Your task to perform on an android device: turn pop-ups on in chrome Image 0: 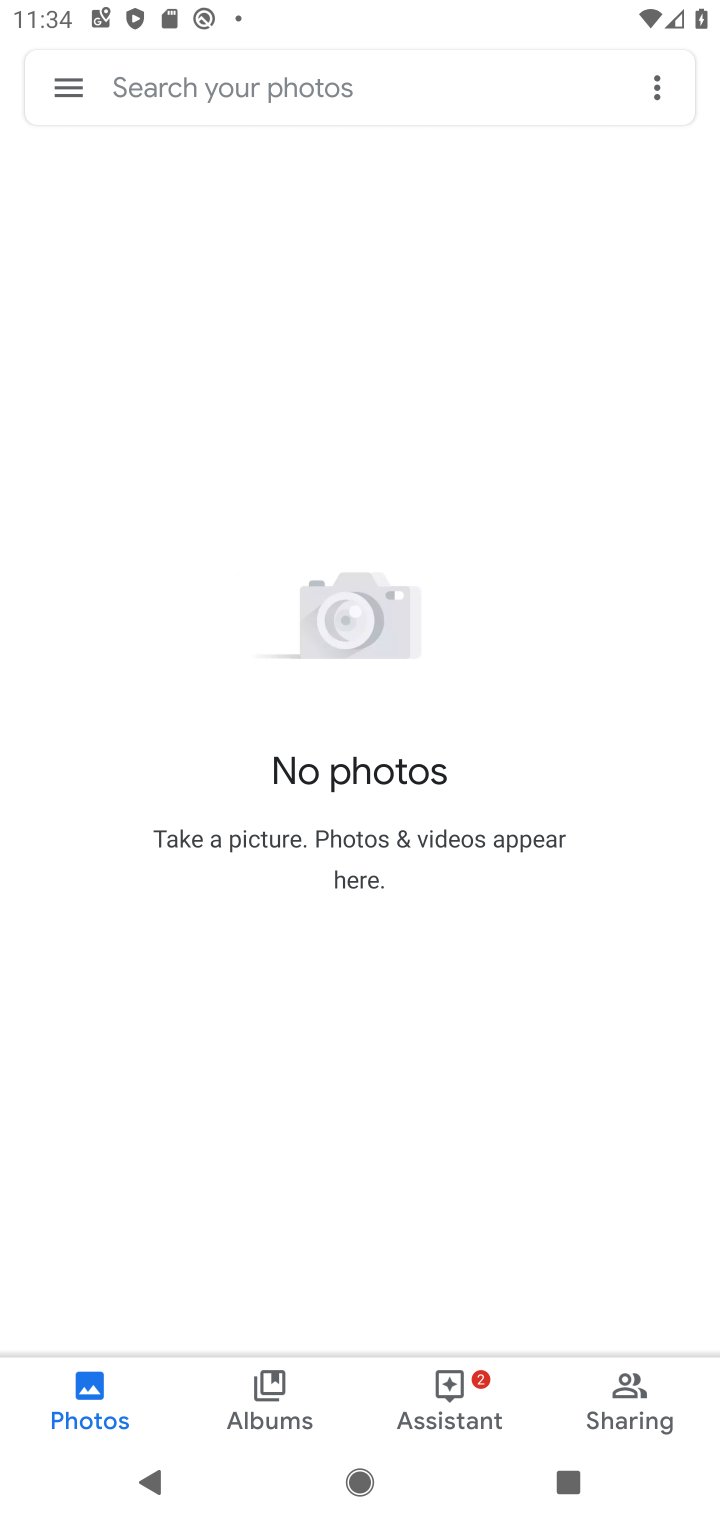
Step 0: press back button
Your task to perform on an android device: turn pop-ups on in chrome Image 1: 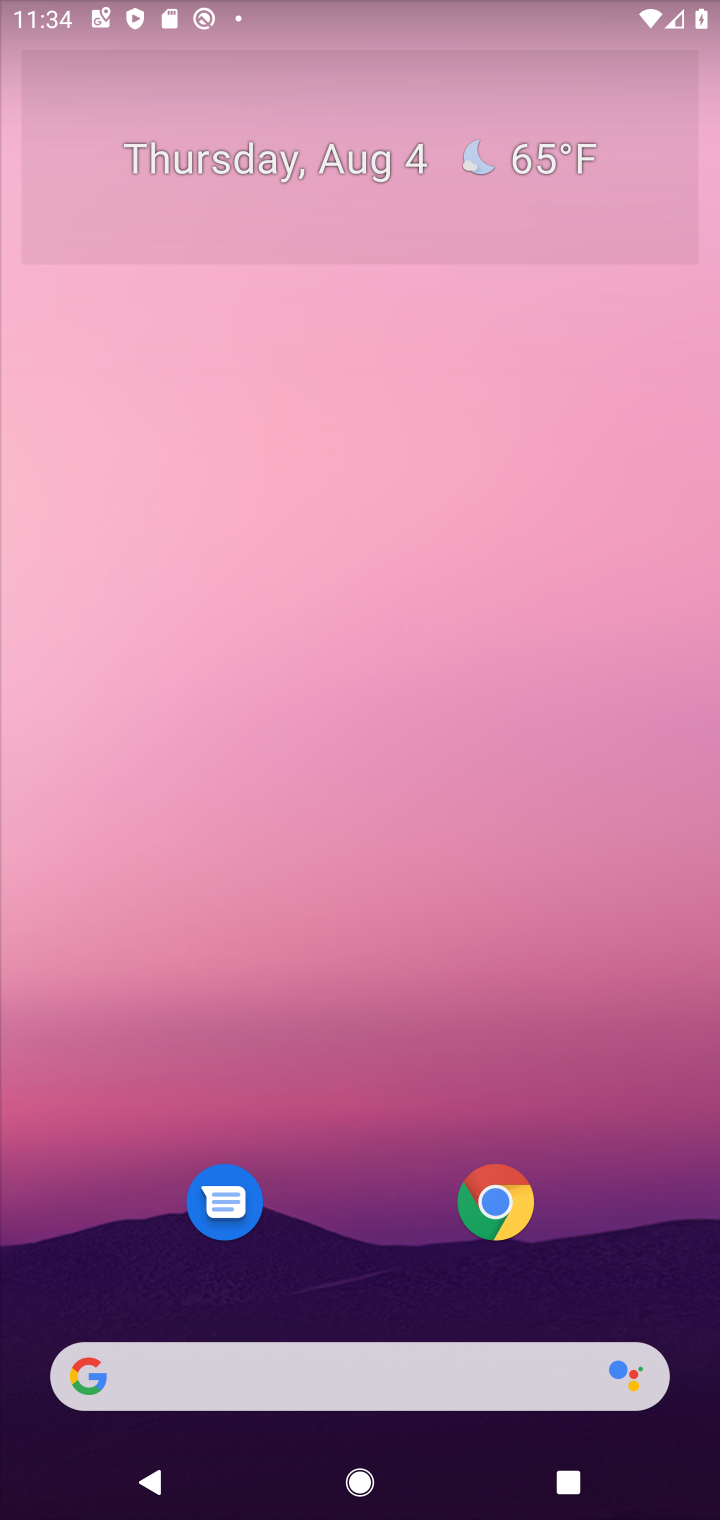
Step 1: click (490, 1206)
Your task to perform on an android device: turn pop-ups on in chrome Image 2: 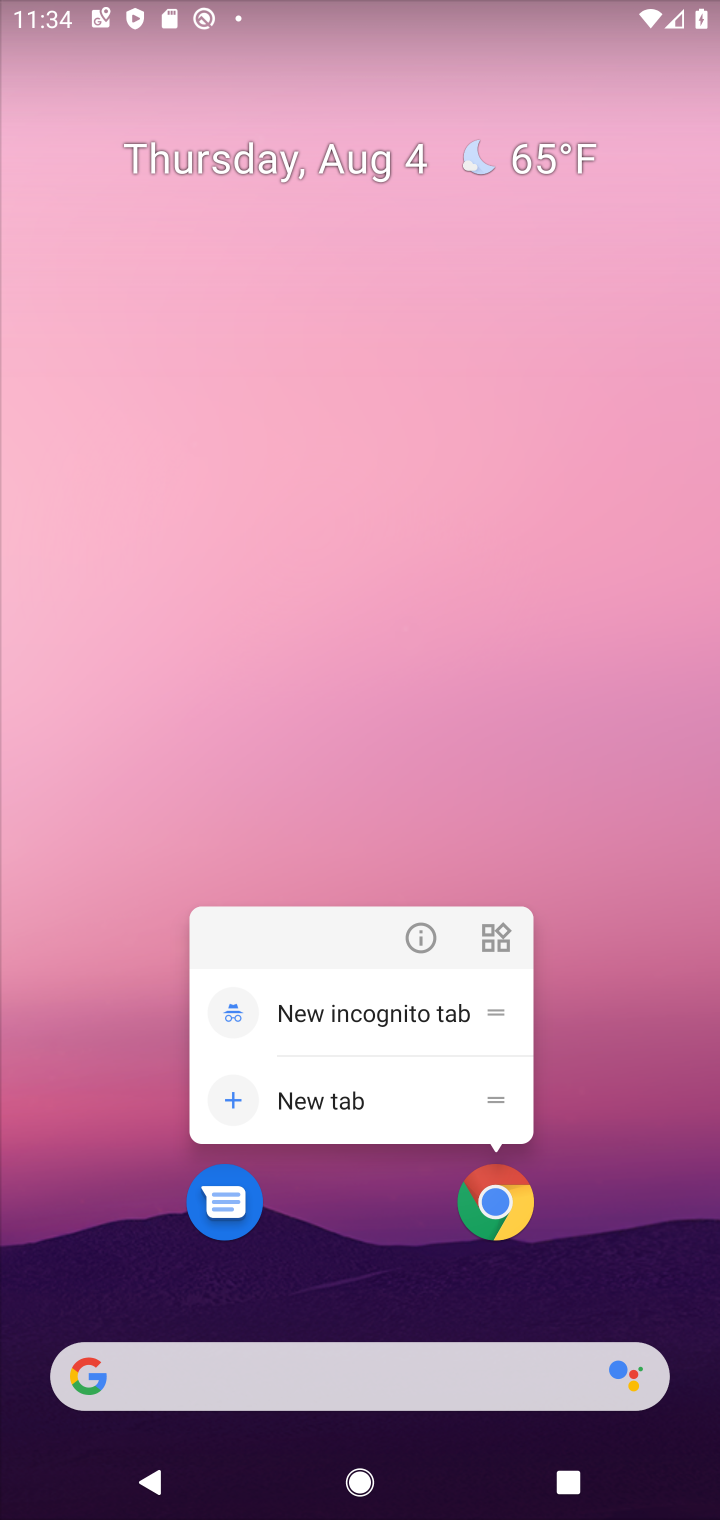
Step 2: click (511, 1204)
Your task to perform on an android device: turn pop-ups on in chrome Image 3: 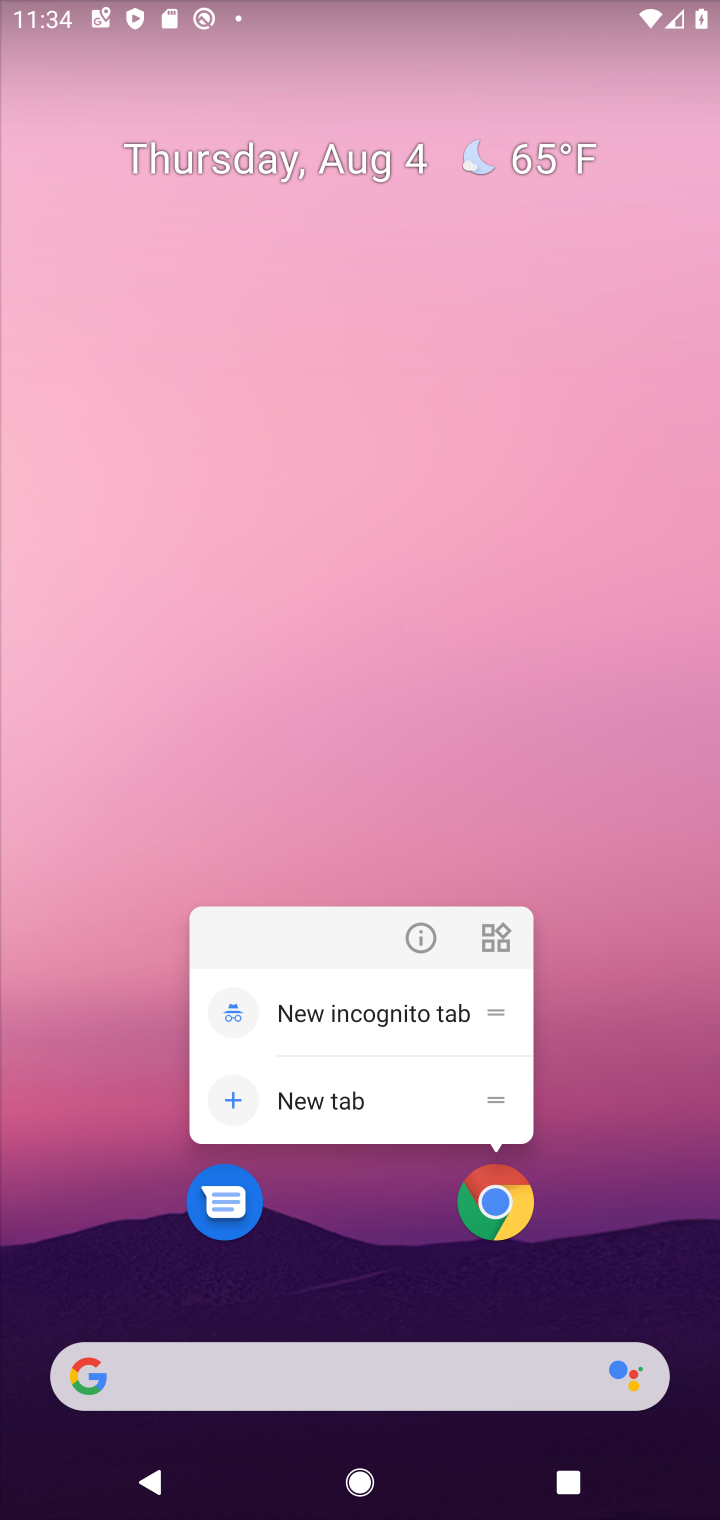
Step 3: click (499, 1202)
Your task to perform on an android device: turn pop-ups on in chrome Image 4: 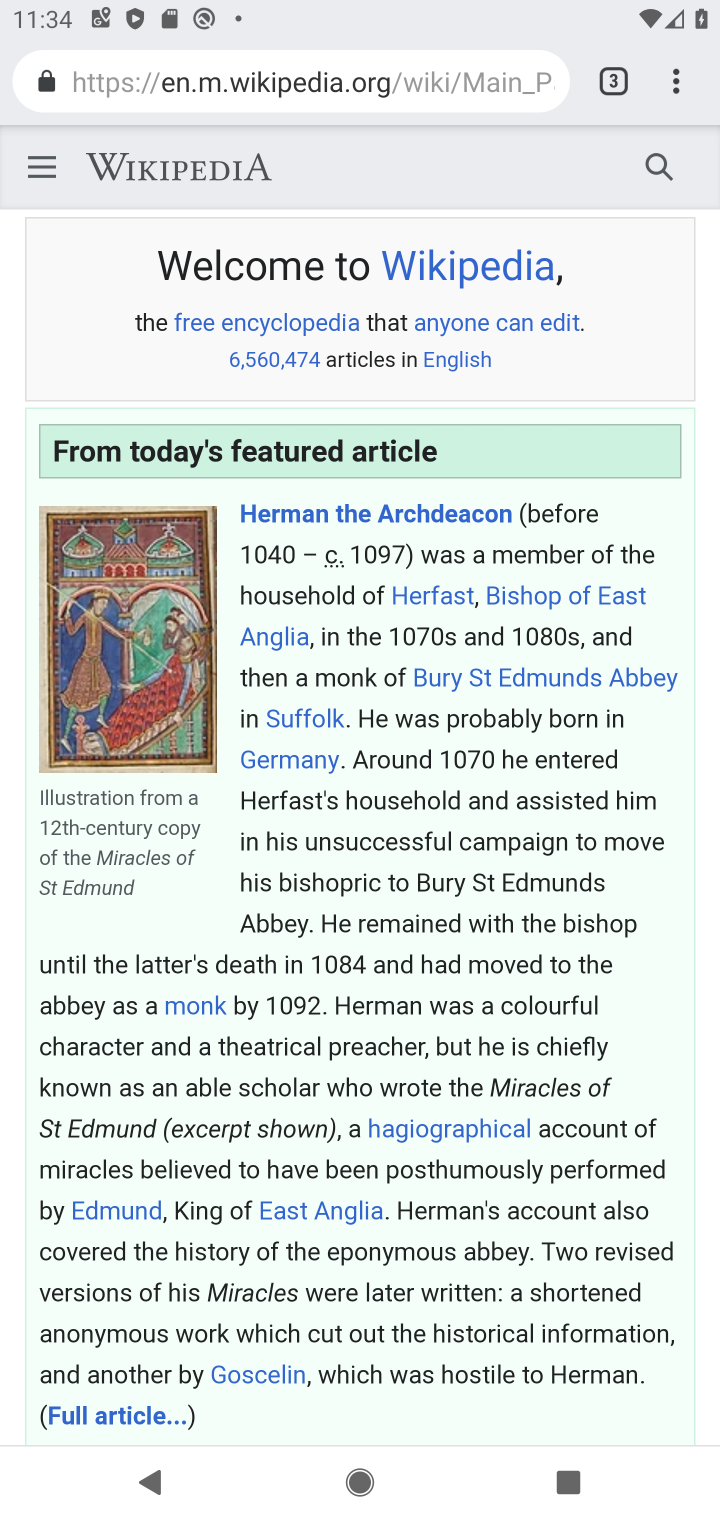
Step 4: drag from (667, 86) to (398, 981)
Your task to perform on an android device: turn pop-ups on in chrome Image 5: 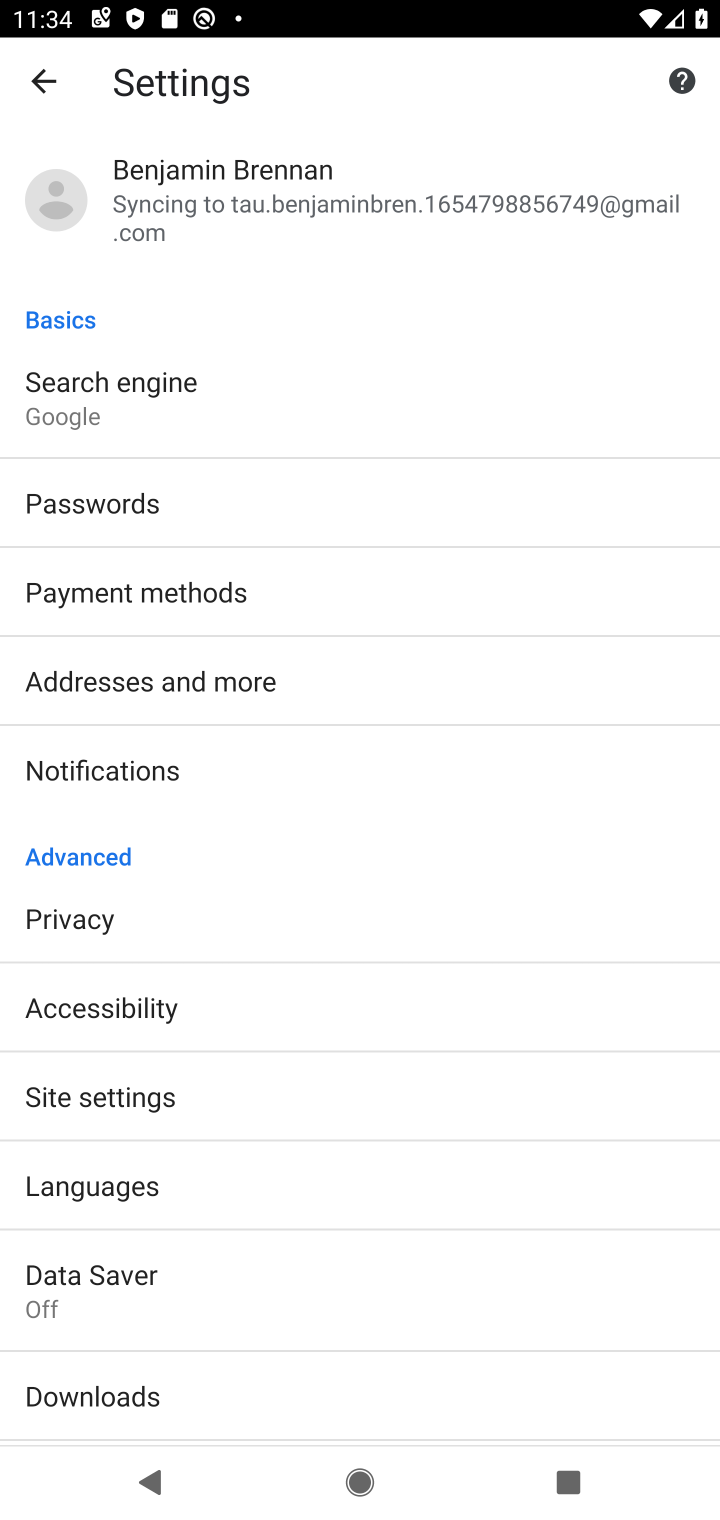
Step 5: click (140, 1103)
Your task to perform on an android device: turn pop-ups on in chrome Image 6: 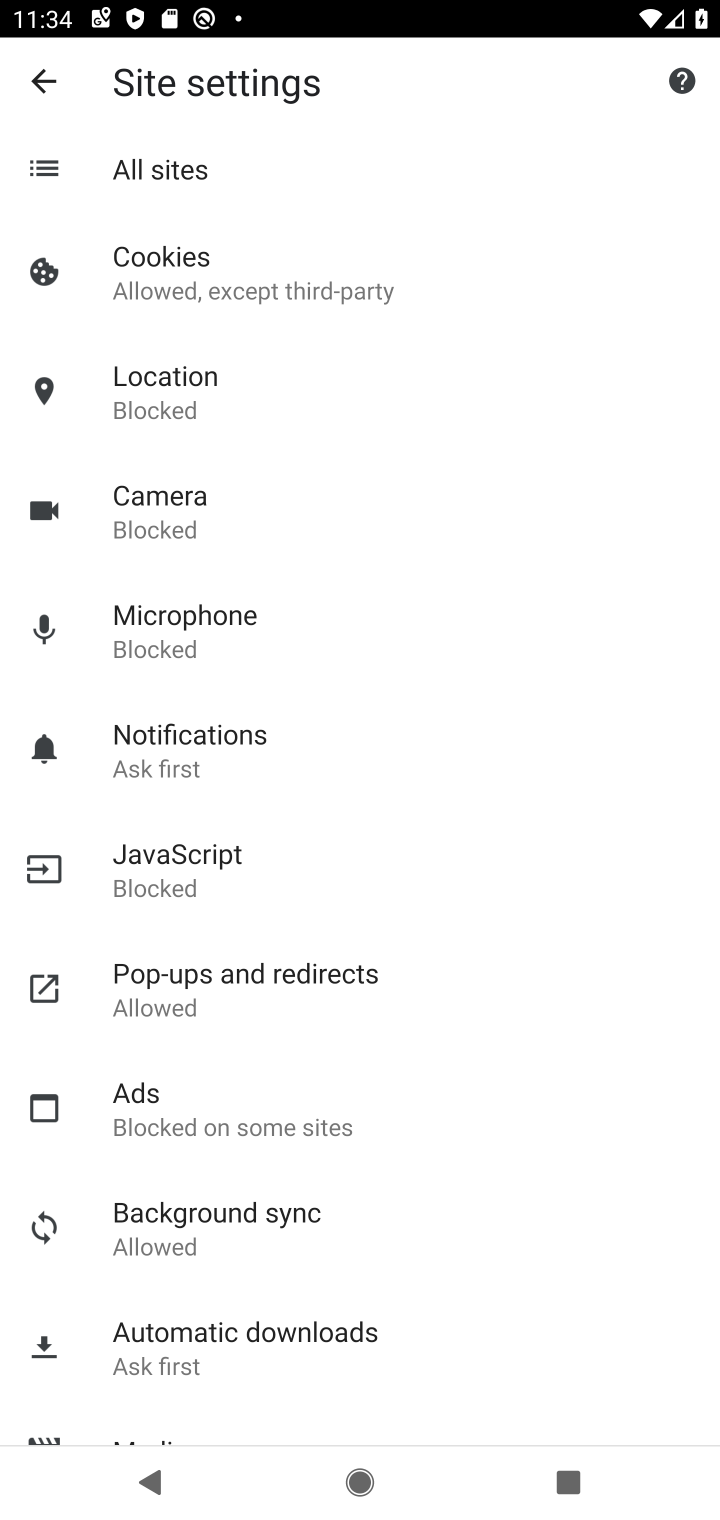
Step 6: click (296, 988)
Your task to perform on an android device: turn pop-ups on in chrome Image 7: 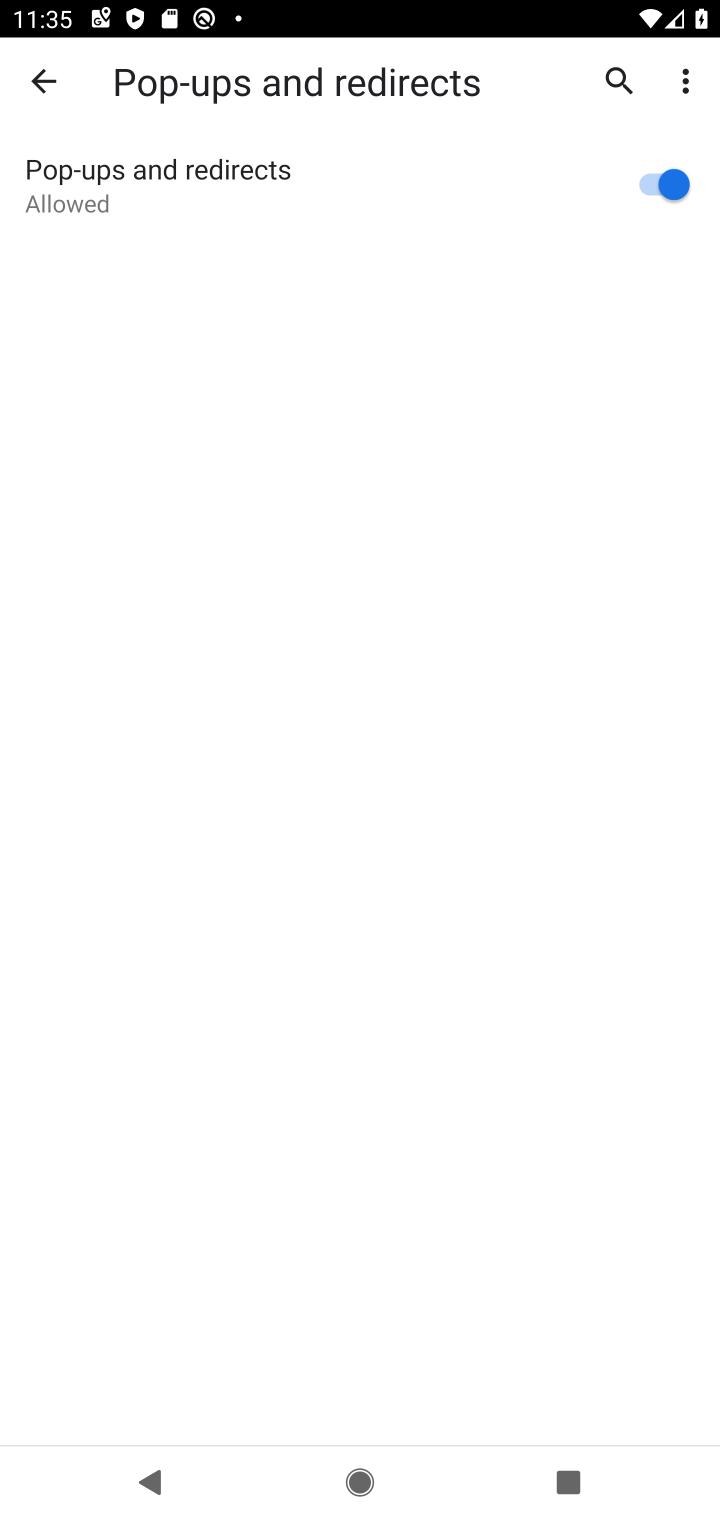
Step 7: task complete